Your task to perform on an android device: Clear all items from cart on ebay.com. Image 0: 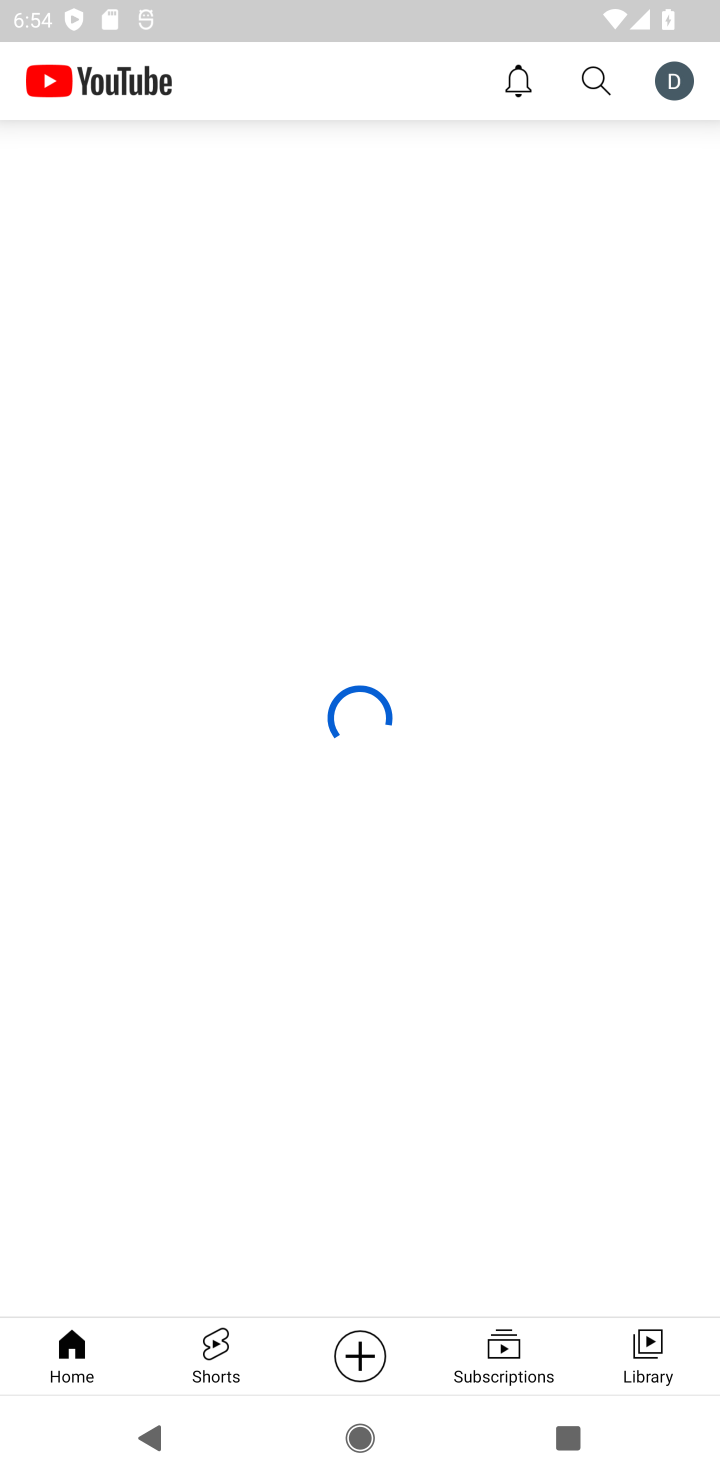
Step 0: press home button
Your task to perform on an android device: Clear all items from cart on ebay.com. Image 1: 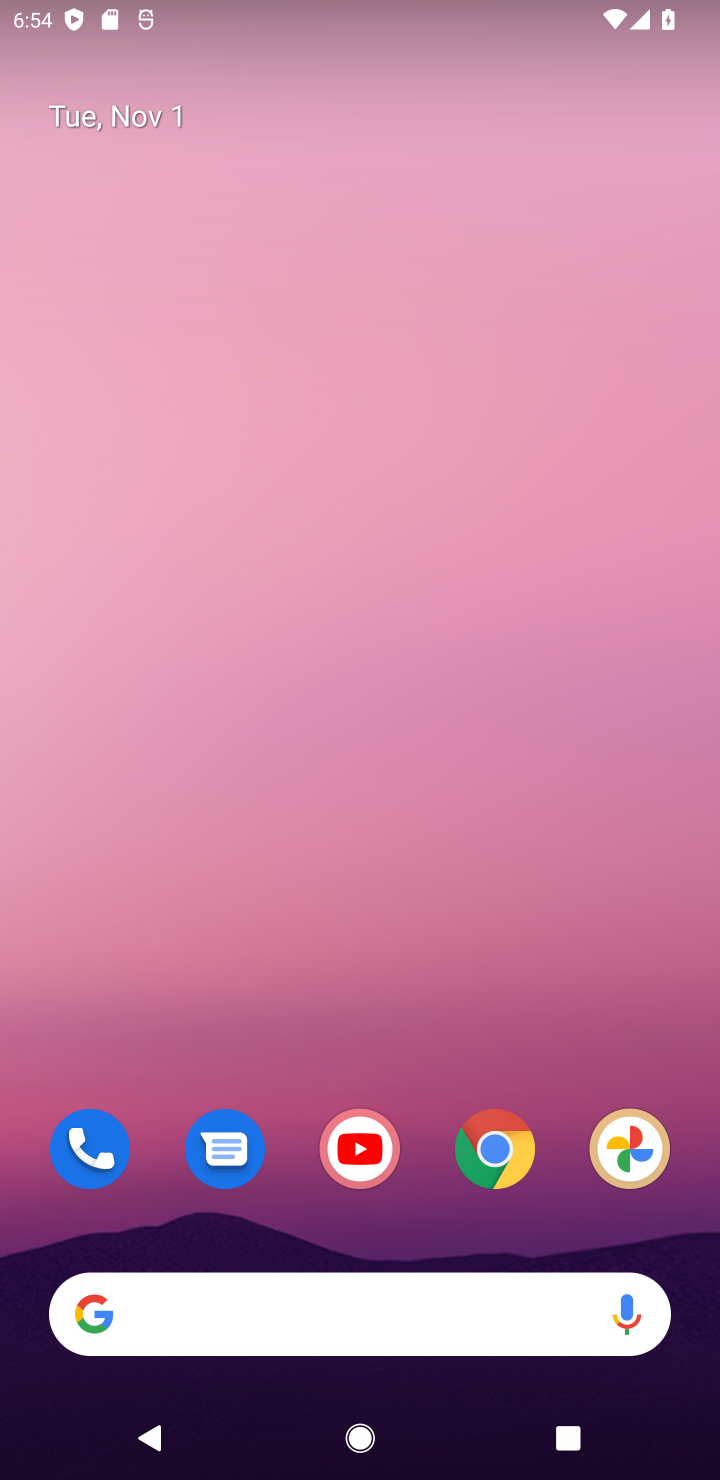
Step 1: drag from (414, 1227) to (404, 132)
Your task to perform on an android device: Clear all items from cart on ebay.com. Image 2: 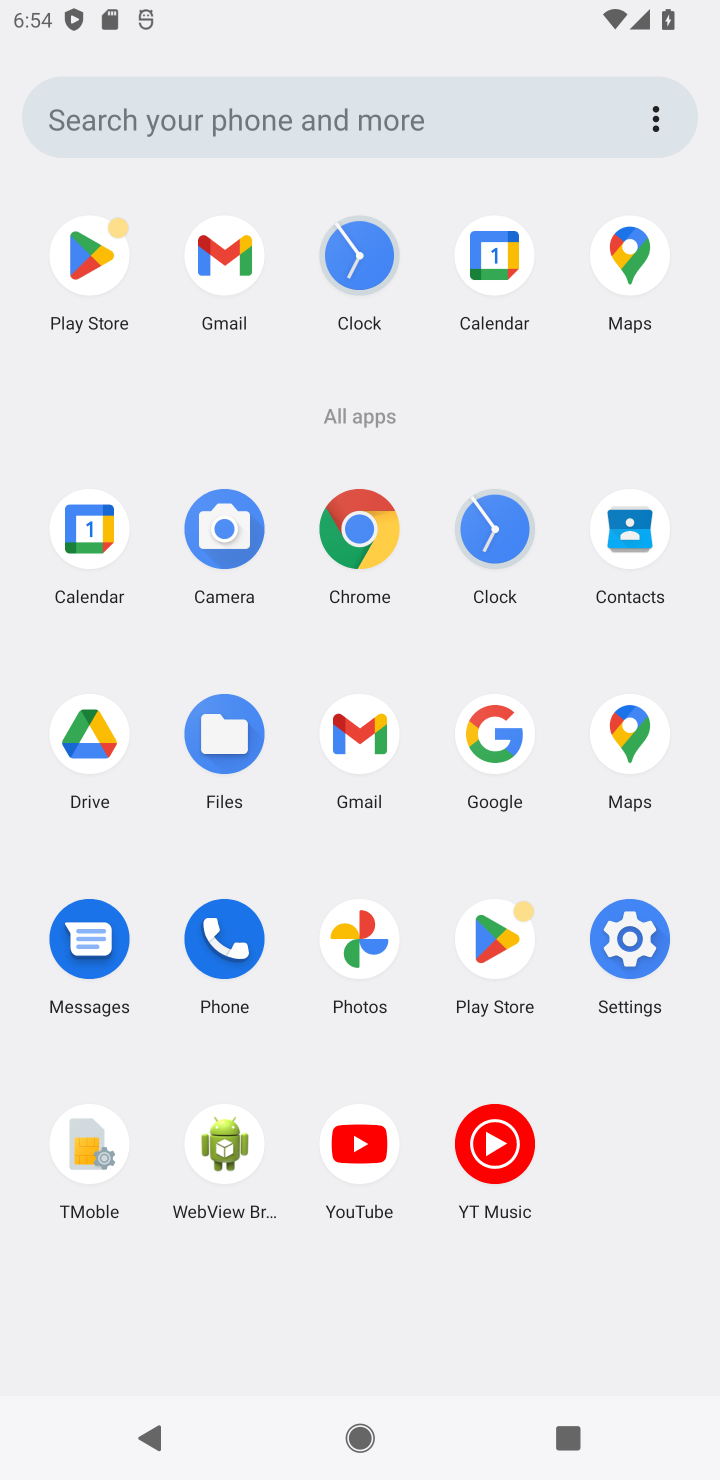
Step 2: click (367, 538)
Your task to perform on an android device: Clear all items from cart on ebay.com. Image 3: 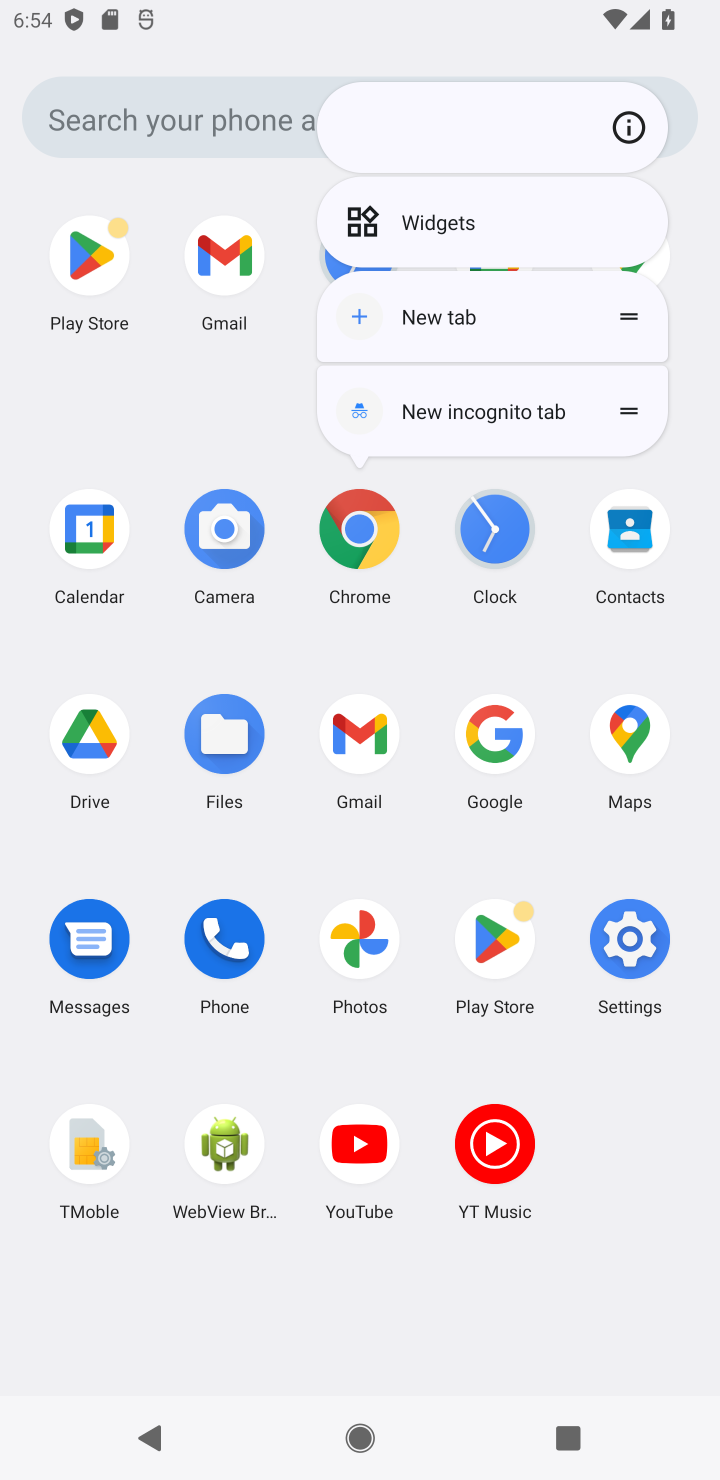
Step 3: click (348, 528)
Your task to perform on an android device: Clear all items from cart on ebay.com. Image 4: 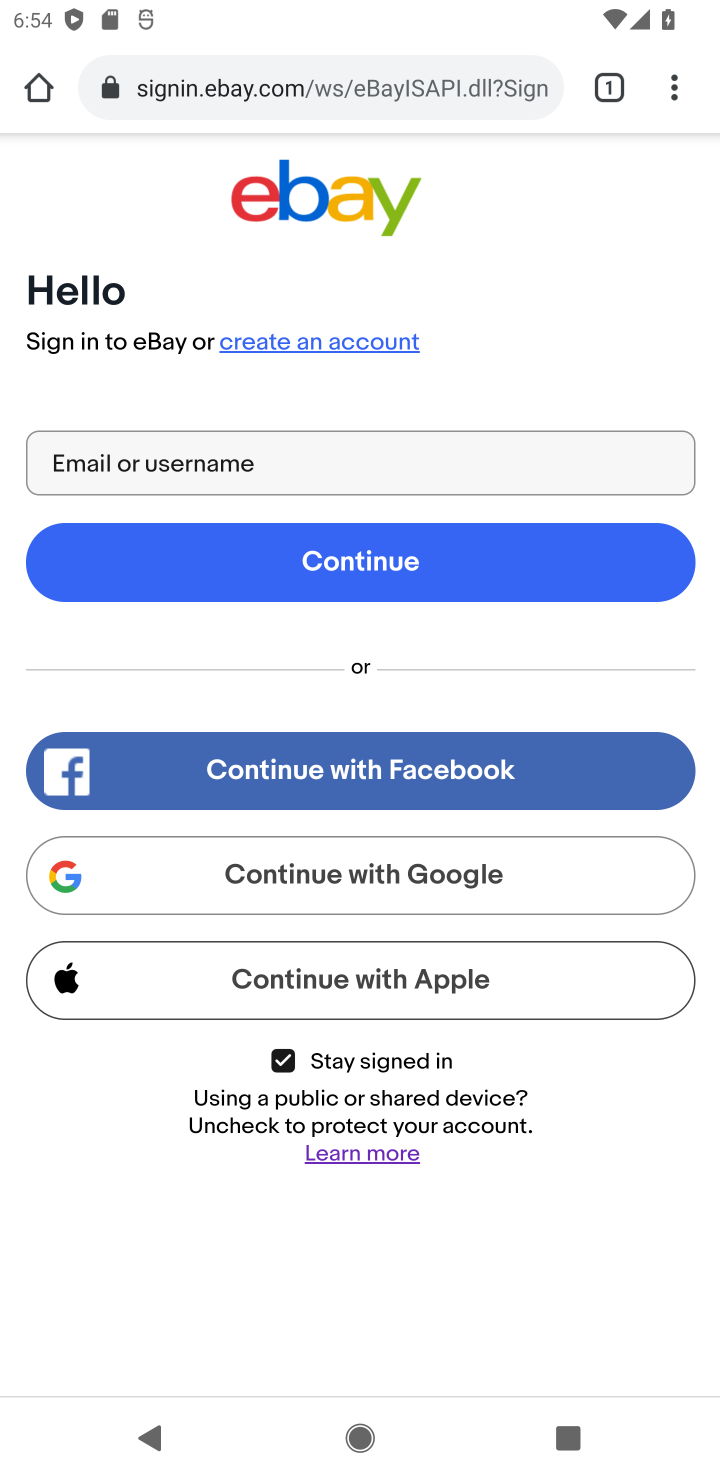
Step 4: click (320, 76)
Your task to perform on an android device: Clear all items from cart on ebay.com. Image 5: 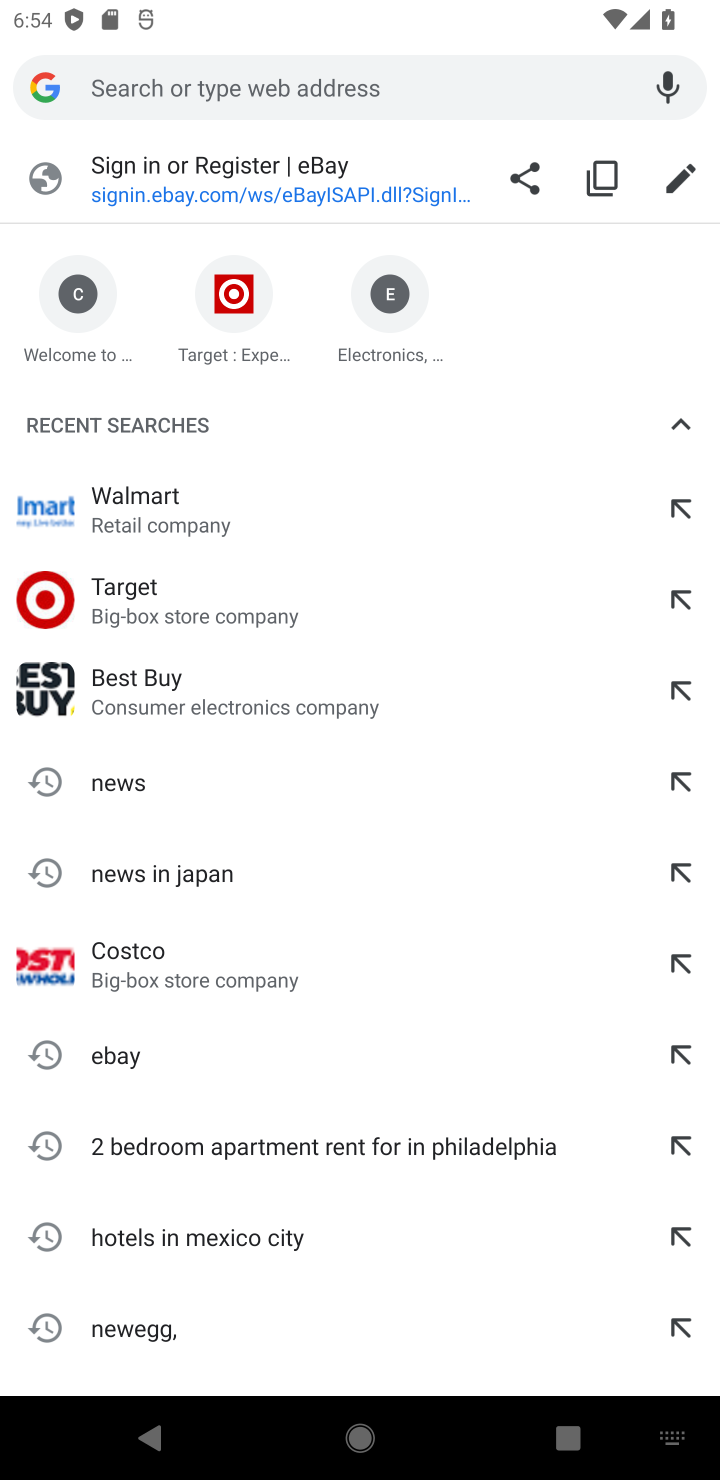
Step 5: type "ebay.com"
Your task to perform on an android device: Clear all items from cart on ebay.com. Image 6: 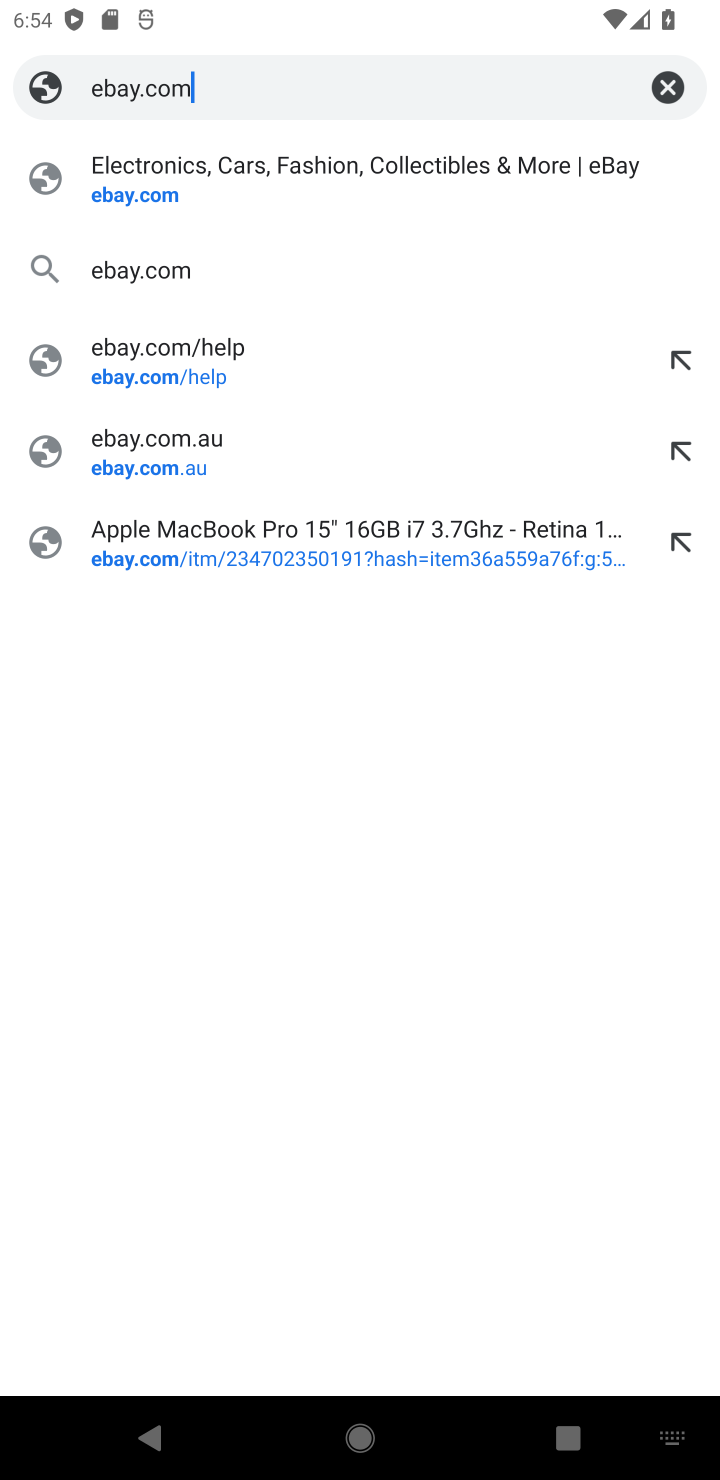
Step 6: press enter
Your task to perform on an android device: Clear all items from cart on ebay.com. Image 7: 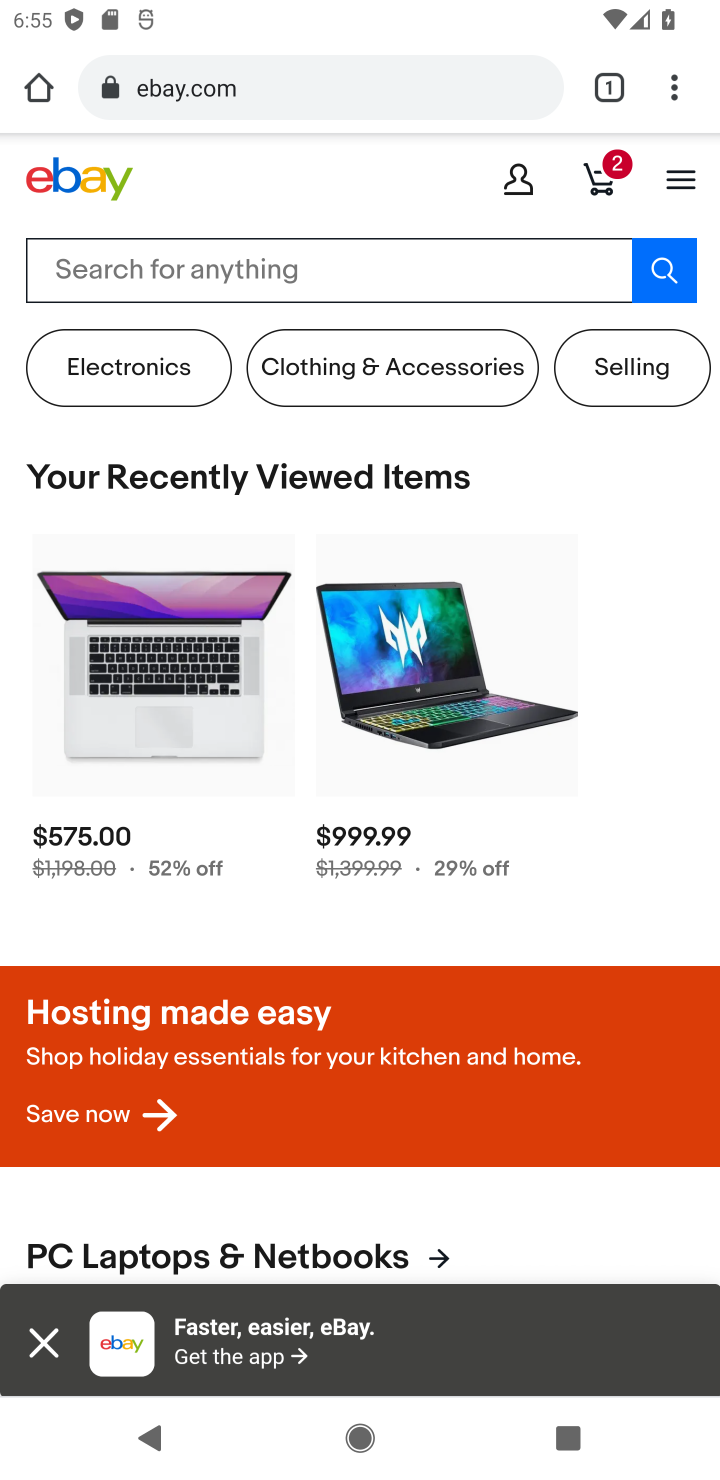
Step 7: click (604, 179)
Your task to perform on an android device: Clear all items from cart on ebay.com. Image 8: 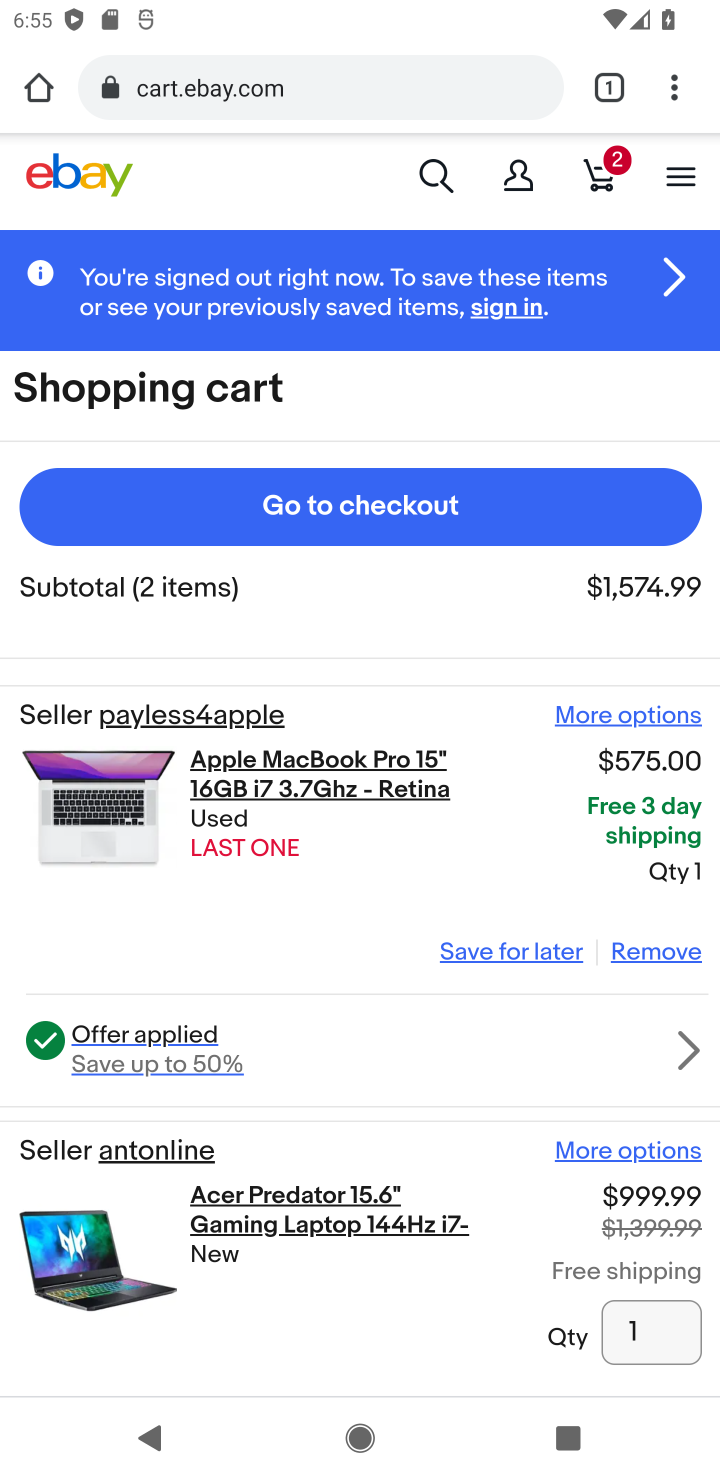
Step 8: click (678, 957)
Your task to perform on an android device: Clear all items from cart on ebay.com. Image 9: 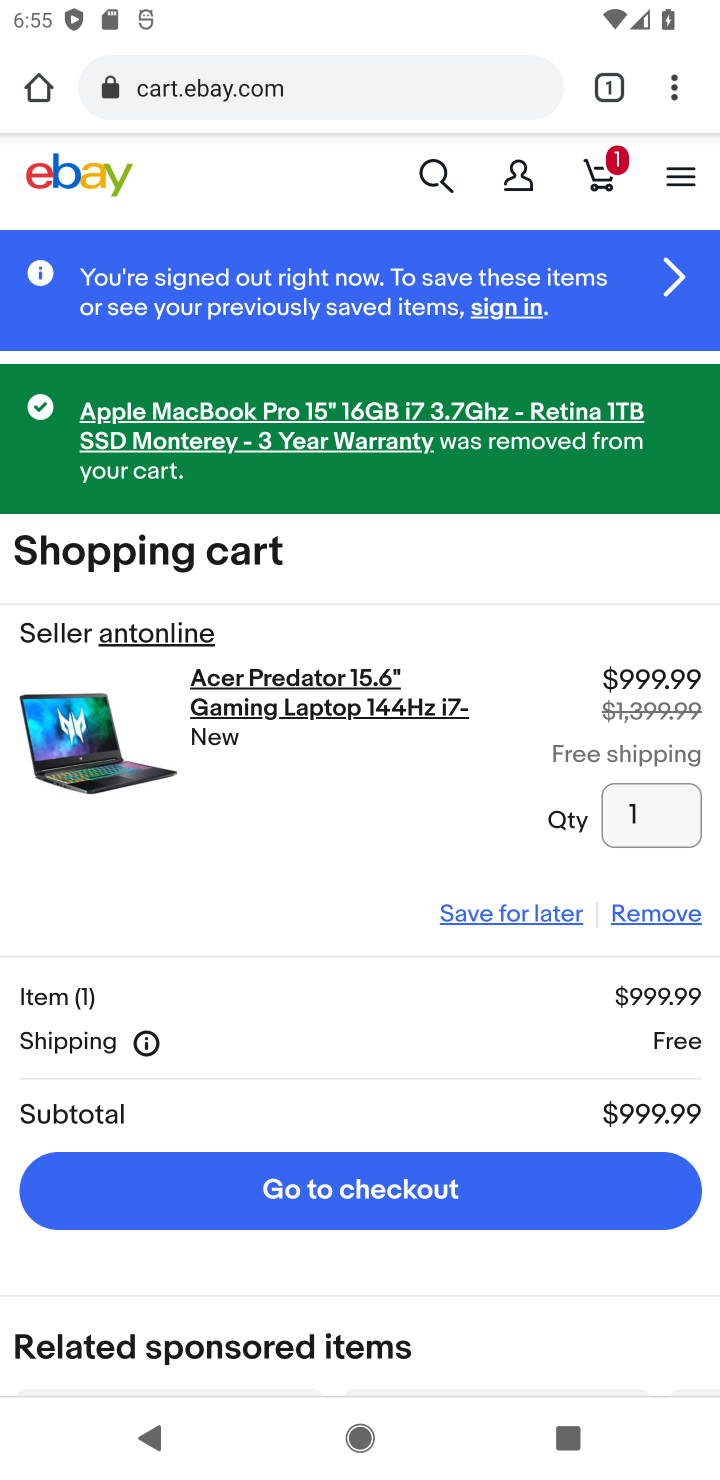
Step 9: click (676, 912)
Your task to perform on an android device: Clear all items from cart on ebay.com. Image 10: 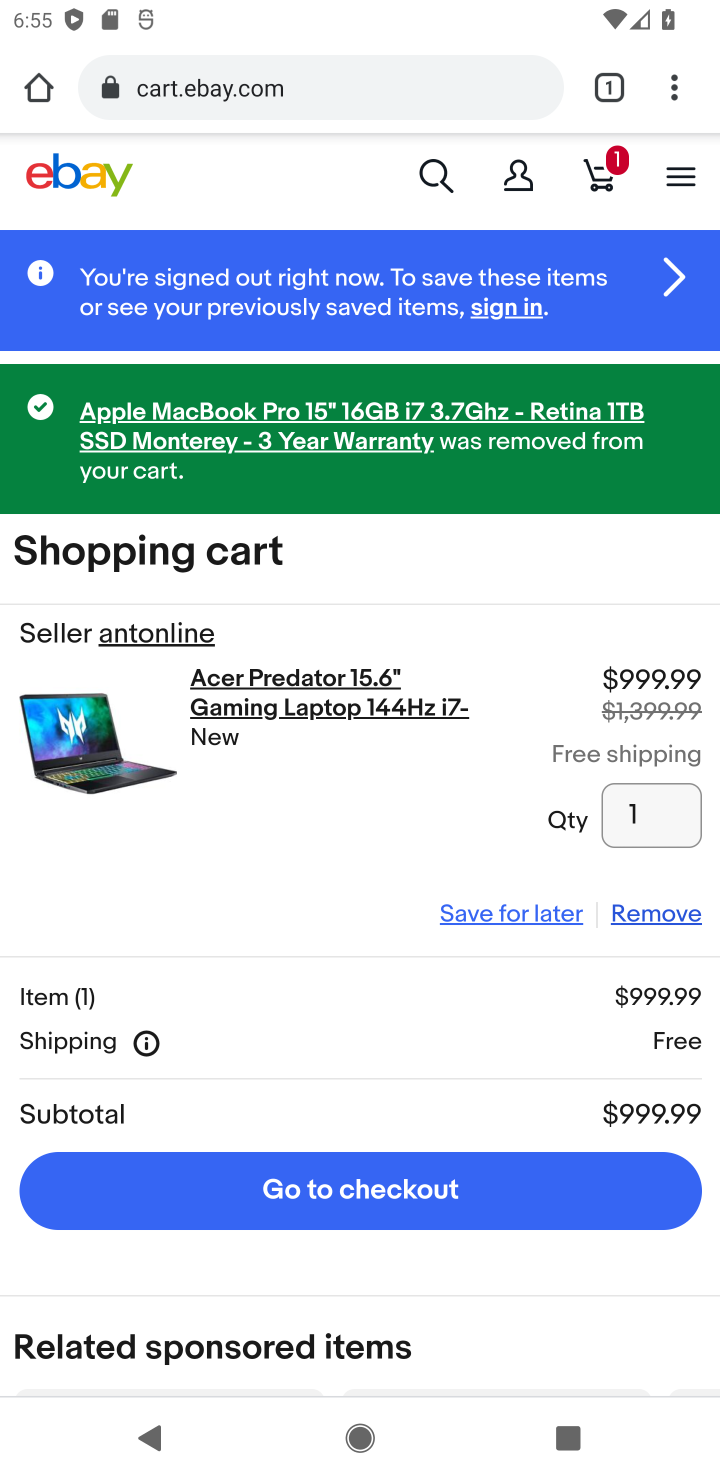
Step 10: click (676, 912)
Your task to perform on an android device: Clear all items from cart on ebay.com. Image 11: 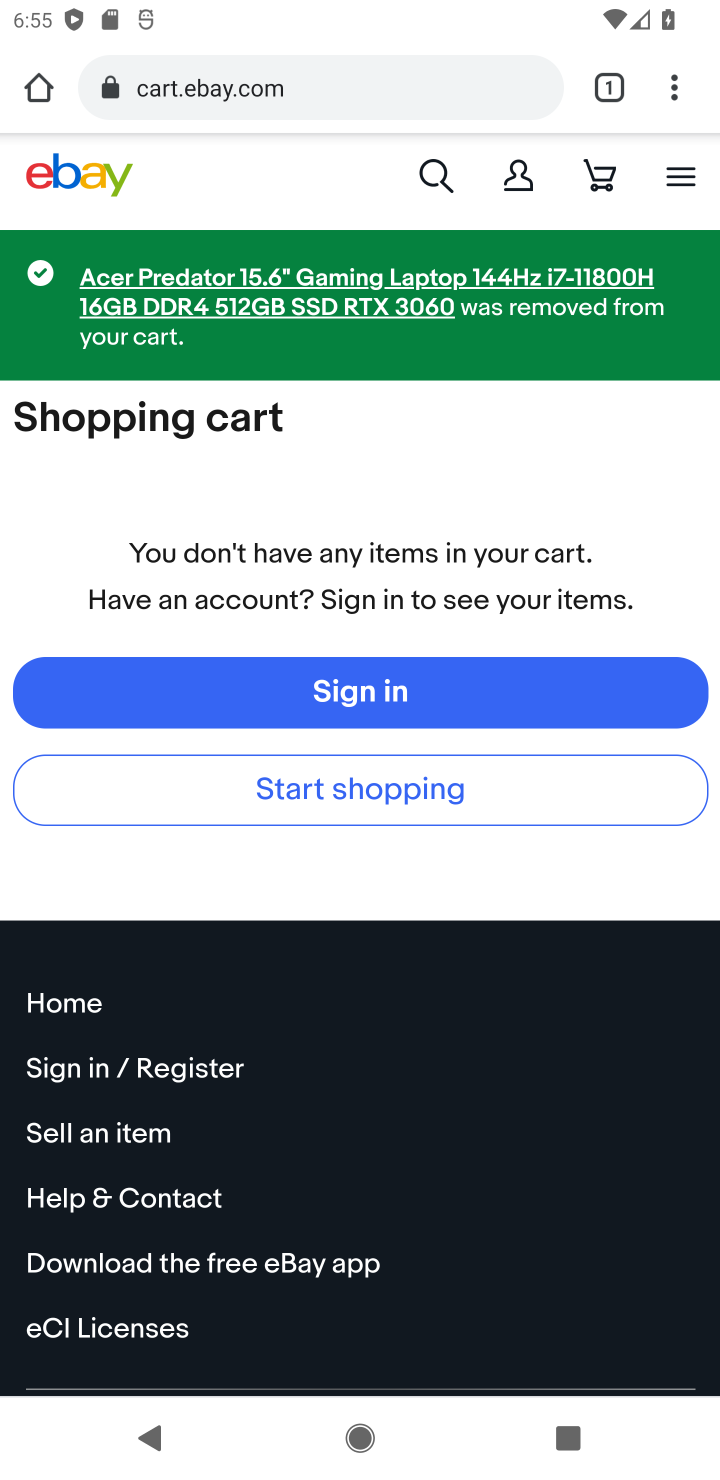
Step 11: task complete